Your task to perform on an android device: toggle airplane mode Image 0: 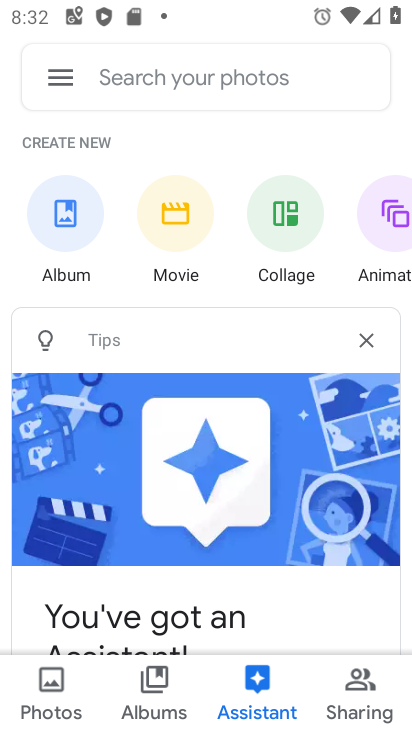
Step 0: press home button
Your task to perform on an android device: toggle airplane mode Image 1: 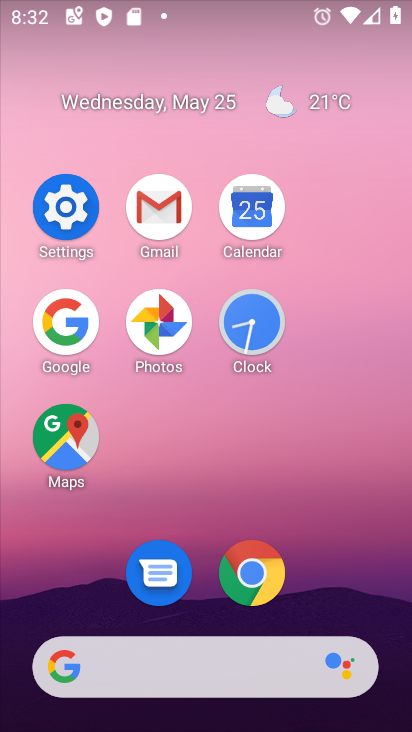
Step 1: click (81, 205)
Your task to perform on an android device: toggle airplane mode Image 2: 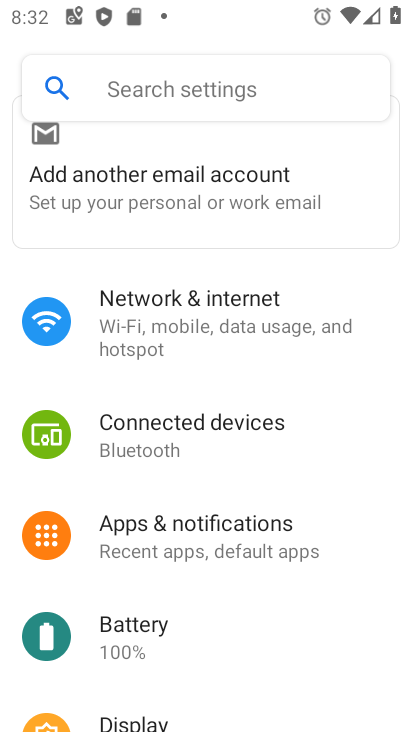
Step 2: click (245, 345)
Your task to perform on an android device: toggle airplane mode Image 3: 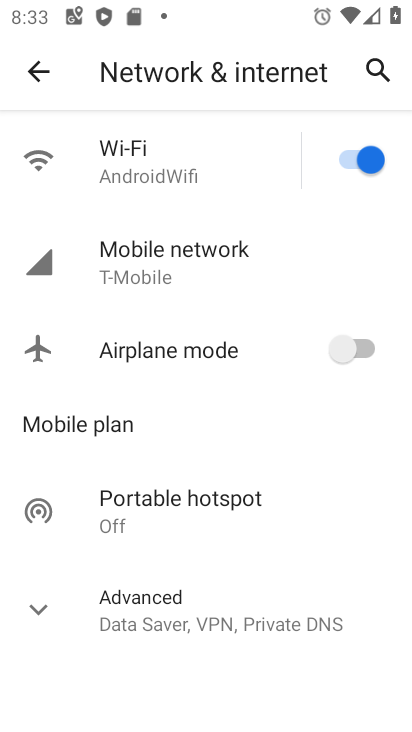
Step 3: click (351, 358)
Your task to perform on an android device: toggle airplane mode Image 4: 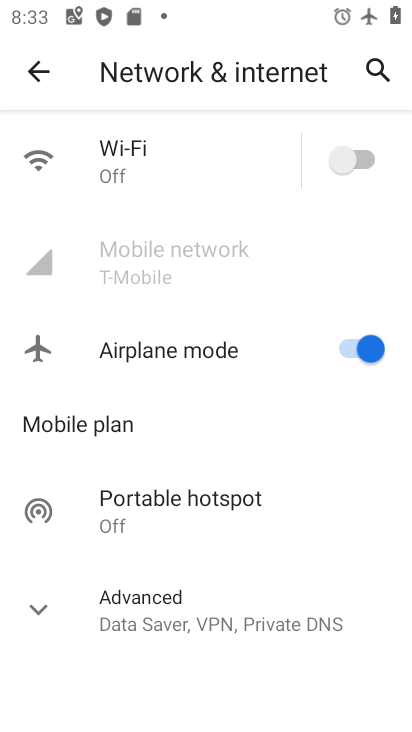
Step 4: task complete